Your task to perform on an android device: check android version Image 0: 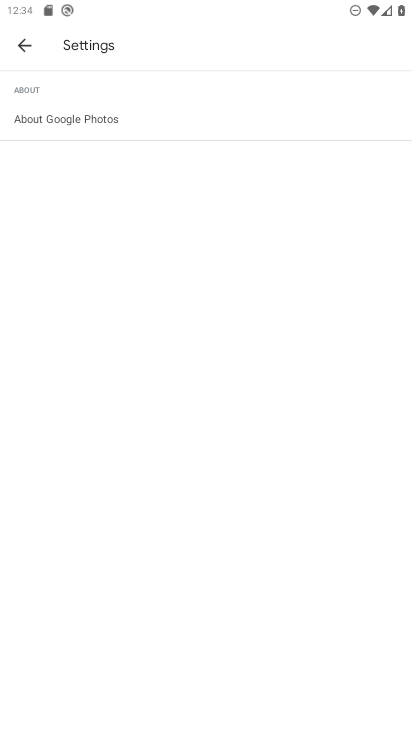
Step 0: press home button
Your task to perform on an android device: check android version Image 1: 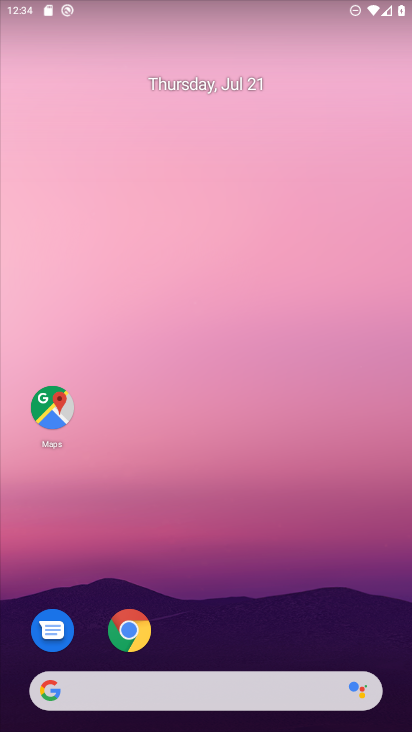
Step 1: drag from (390, 703) to (354, 77)
Your task to perform on an android device: check android version Image 2: 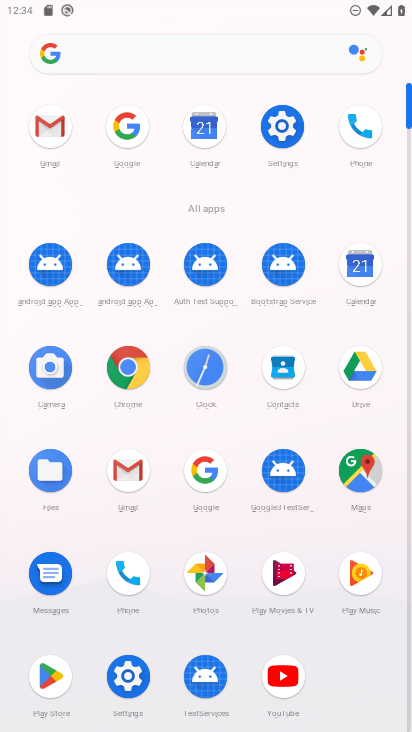
Step 2: click (125, 669)
Your task to perform on an android device: check android version Image 3: 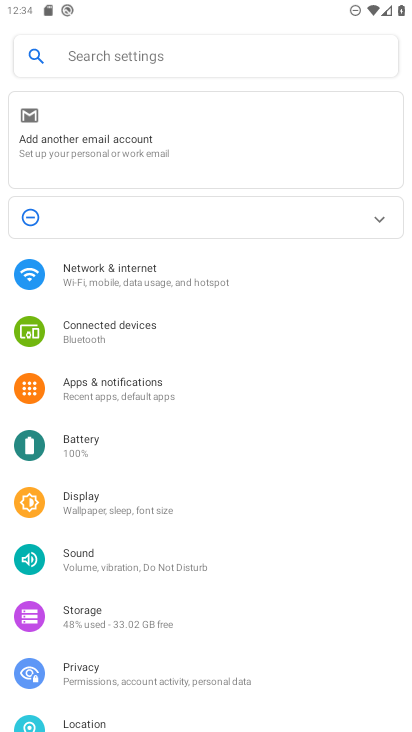
Step 3: drag from (387, 656) to (370, 248)
Your task to perform on an android device: check android version Image 4: 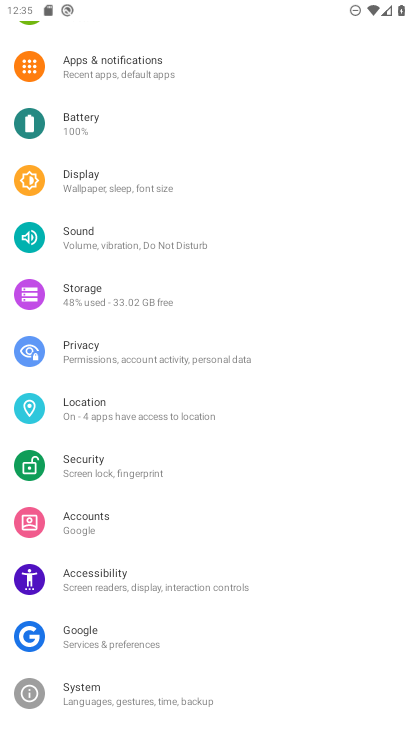
Step 4: drag from (331, 655) to (336, 213)
Your task to perform on an android device: check android version Image 5: 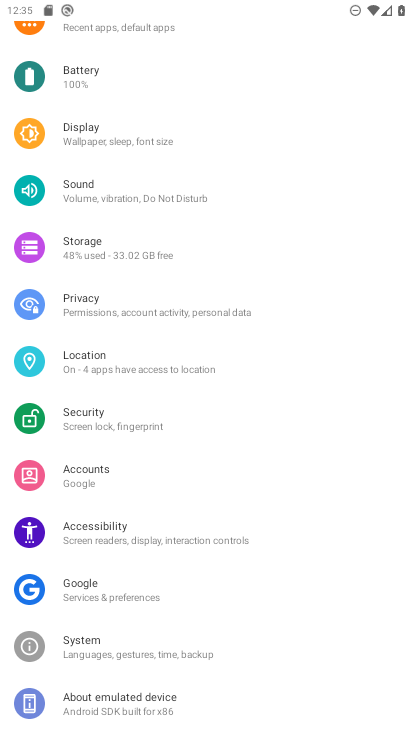
Step 5: click (139, 688)
Your task to perform on an android device: check android version Image 6: 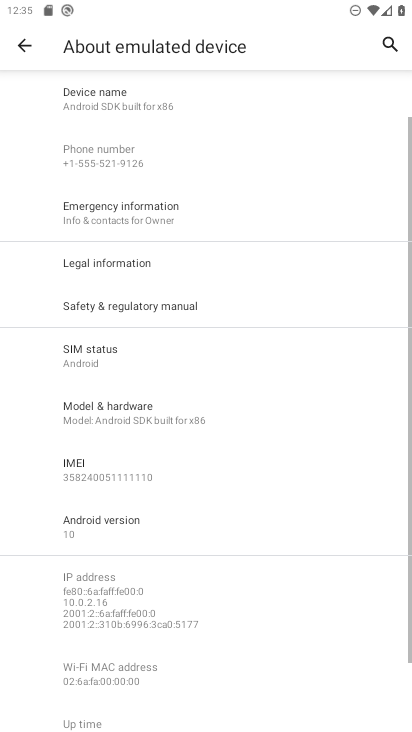
Step 6: click (128, 524)
Your task to perform on an android device: check android version Image 7: 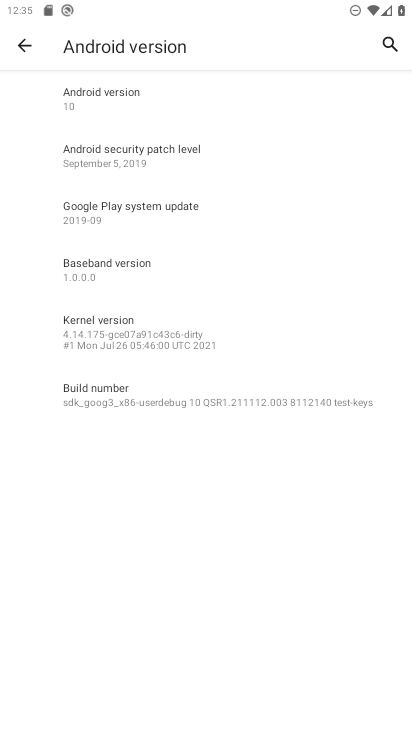
Step 7: click (115, 106)
Your task to perform on an android device: check android version Image 8: 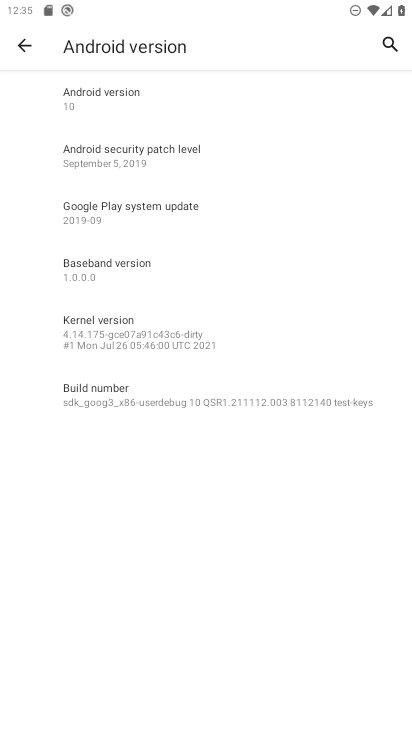
Step 8: task complete